Your task to perform on an android device: turn off location Image 0: 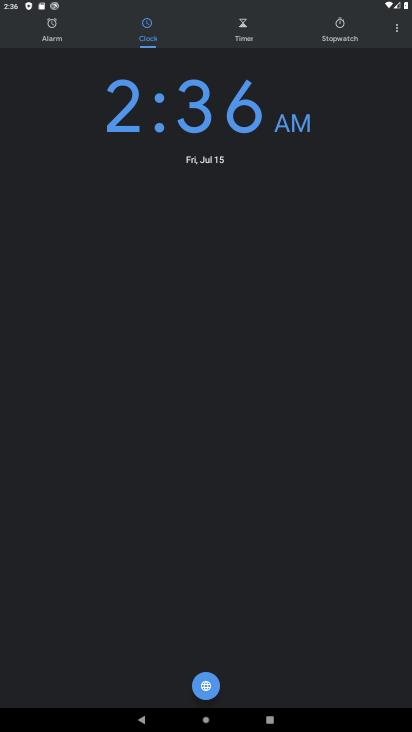
Step 0: press home button
Your task to perform on an android device: turn off location Image 1: 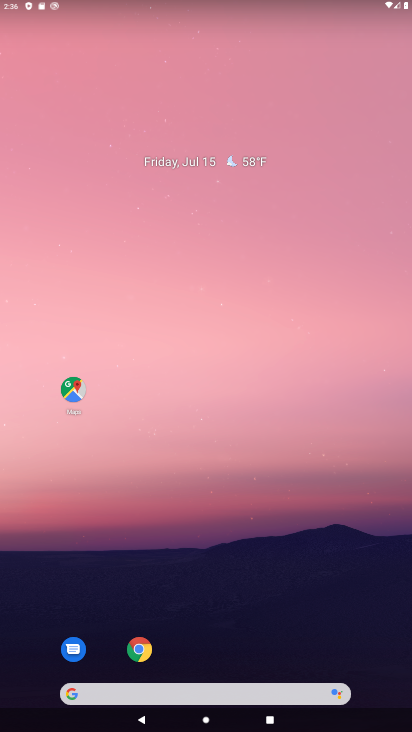
Step 1: drag from (229, 721) to (247, 121)
Your task to perform on an android device: turn off location Image 2: 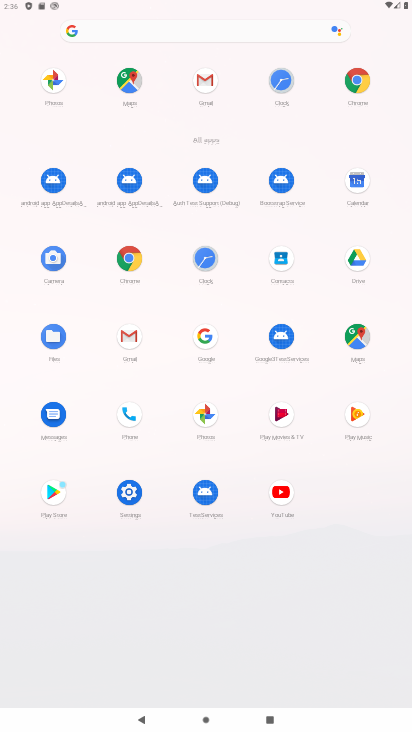
Step 2: click (137, 496)
Your task to perform on an android device: turn off location Image 3: 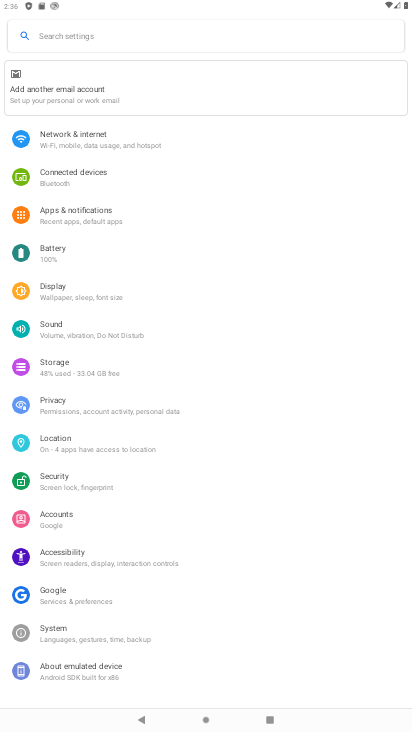
Step 3: click (55, 434)
Your task to perform on an android device: turn off location Image 4: 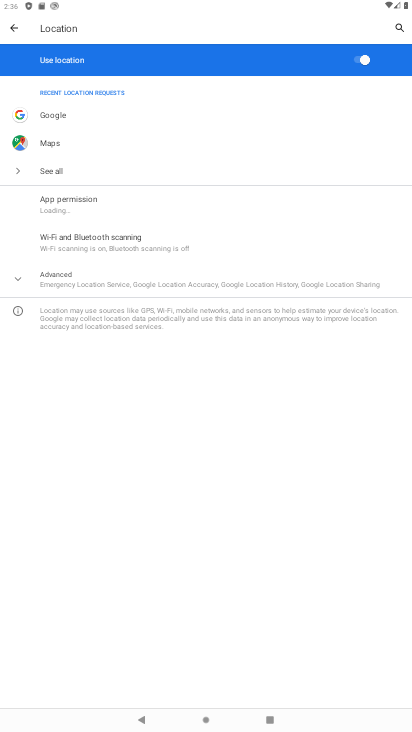
Step 4: click (356, 61)
Your task to perform on an android device: turn off location Image 5: 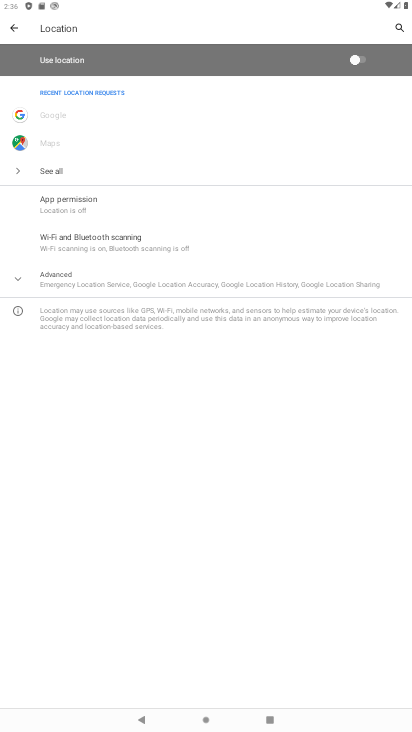
Step 5: task complete